Your task to perform on an android device: Open Wikipedia Image 0: 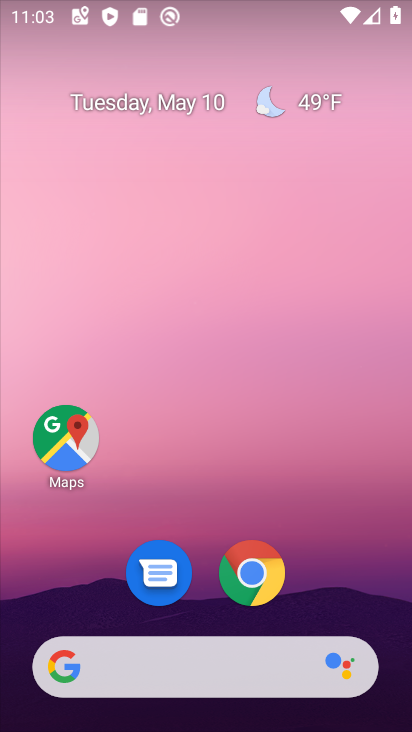
Step 0: click (249, 574)
Your task to perform on an android device: Open Wikipedia Image 1: 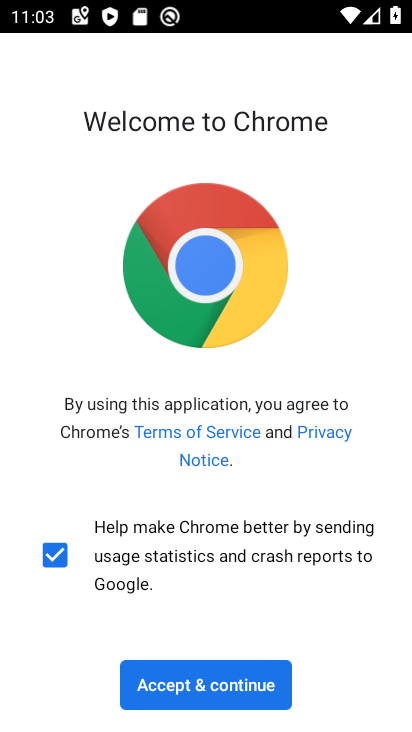
Step 1: click (186, 684)
Your task to perform on an android device: Open Wikipedia Image 2: 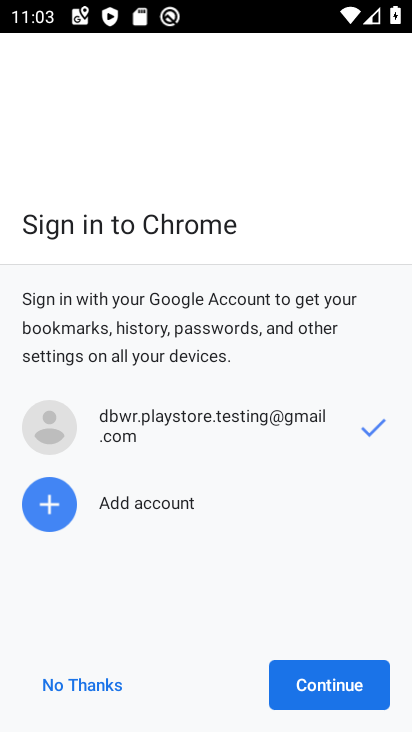
Step 2: click (348, 678)
Your task to perform on an android device: Open Wikipedia Image 3: 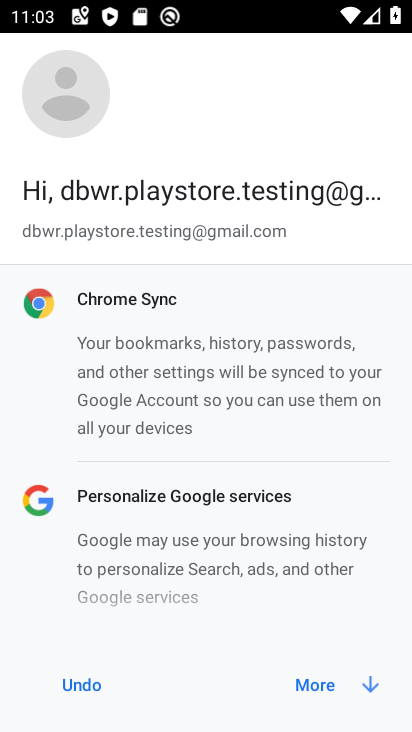
Step 3: click (315, 683)
Your task to perform on an android device: Open Wikipedia Image 4: 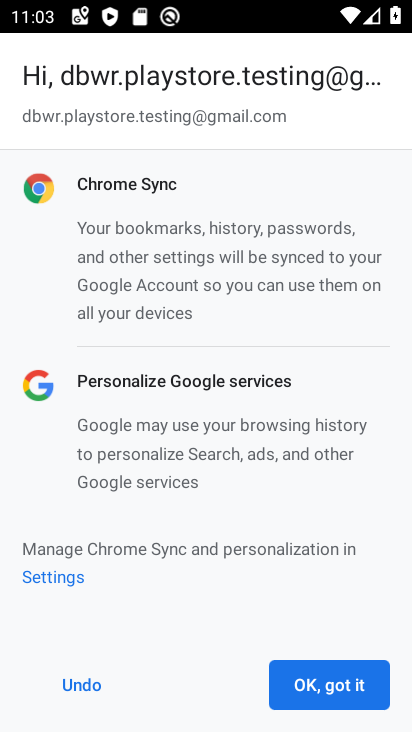
Step 4: click (315, 683)
Your task to perform on an android device: Open Wikipedia Image 5: 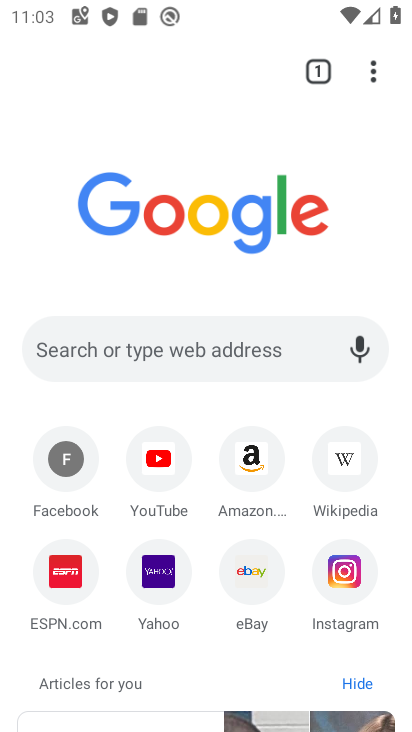
Step 5: click (197, 344)
Your task to perform on an android device: Open Wikipedia Image 6: 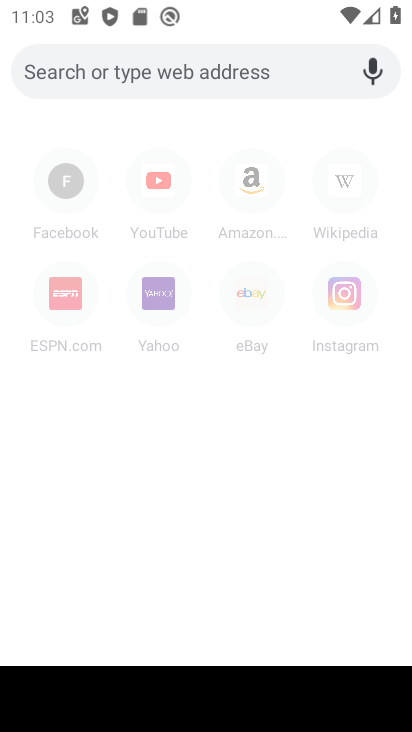
Step 6: type "Wikipedia"
Your task to perform on an android device: Open Wikipedia Image 7: 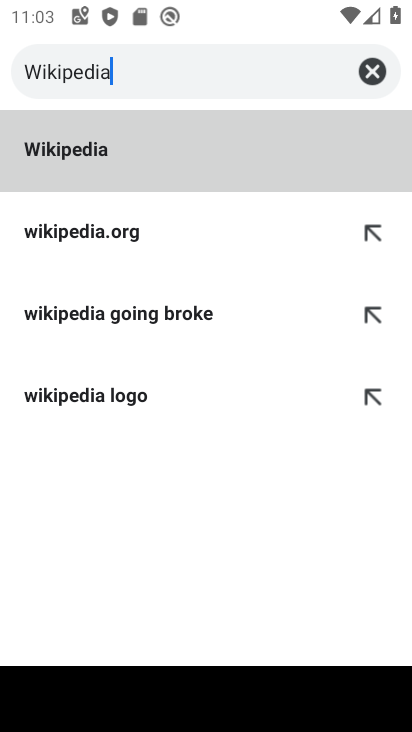
Step 7: click (85, 161)
Your task to perform on an android device: Open Wikipedia Image 8: 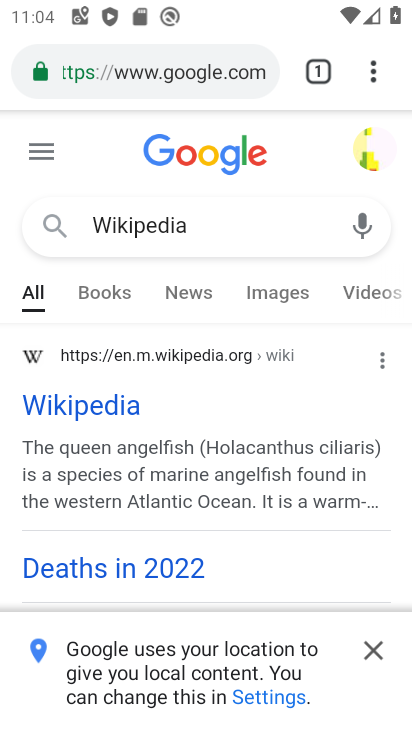
Step 8: click (106, 411)
Your task to perform on an android device: Open Wikipedia Image 9: 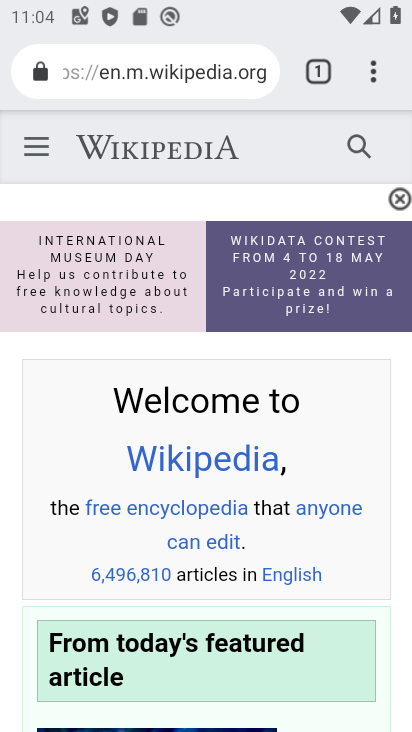
Step 9: task complete